Your task to perform on an android device: turn on translation in the chrome app Image 0: 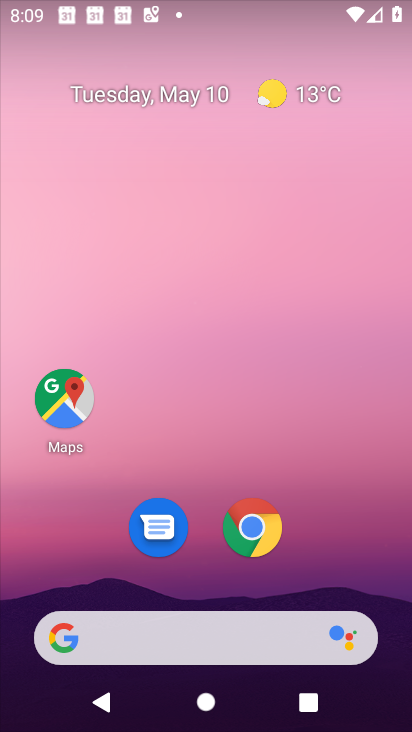
Step 0: click (260, 519)
Your task to perform on an android device: turn on translation in the chrome app Image 1: 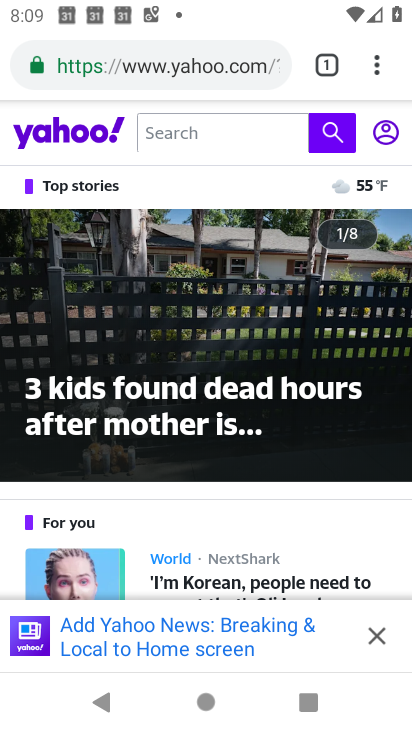
Step 1: click (379, 63)
Your task to perform on an android device: turn on translation in the chrome app Image 2: 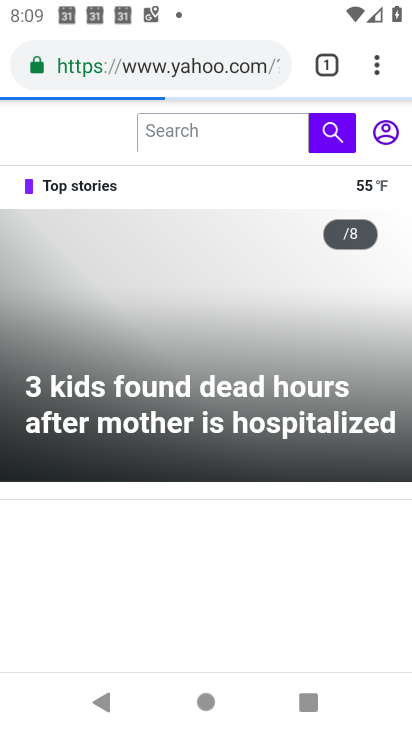
Step 2: click (372, 76)
Your task to perform on an android device: turn on translation in the chrome app Image 3: 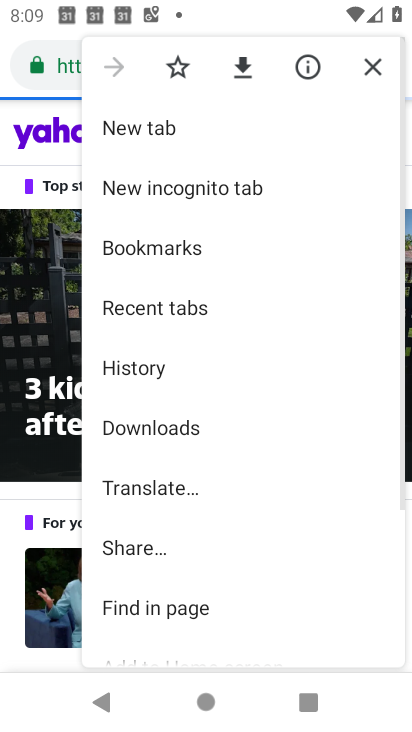
Step 3: drag from (181, 600) to (267, 194)
Your task to perform on an android device: turn on translation in the chrome app Image 4: 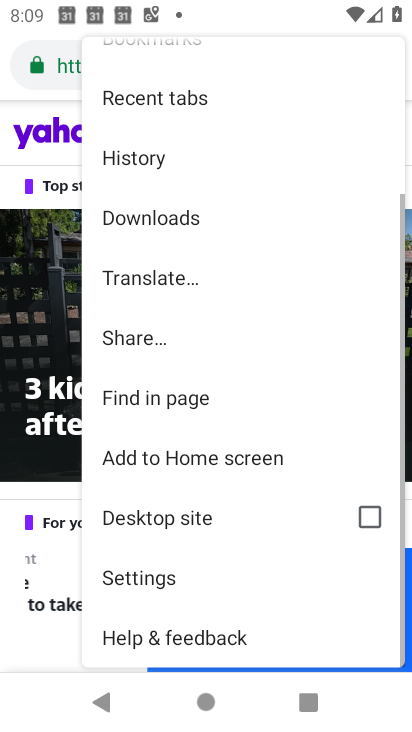
Step 4: click (163, 573)
Your task to perform on an android device: turn on translation in the chrome app Image 5: 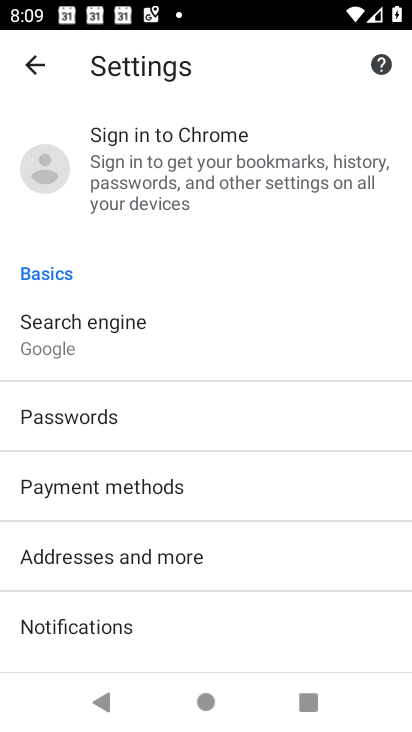
Step 5: drag from (40, 638) to (241, 168)
Your task to perform on an android device: turn on translation in the chrome app Image 6: 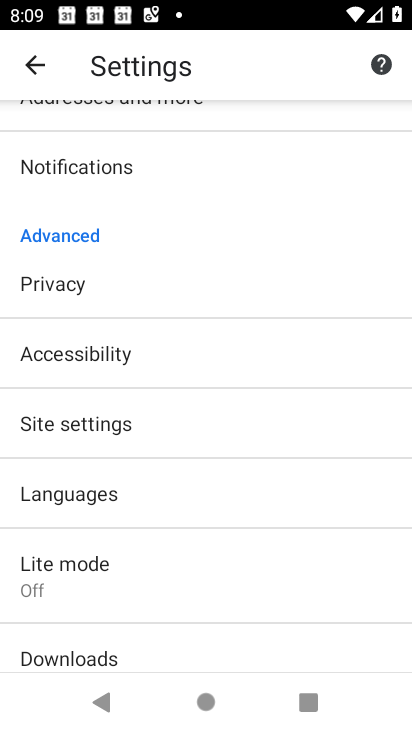
Step 6: click (85, 487)
Your task to perform on an android device: turn on translation in the chrome app Image 7: 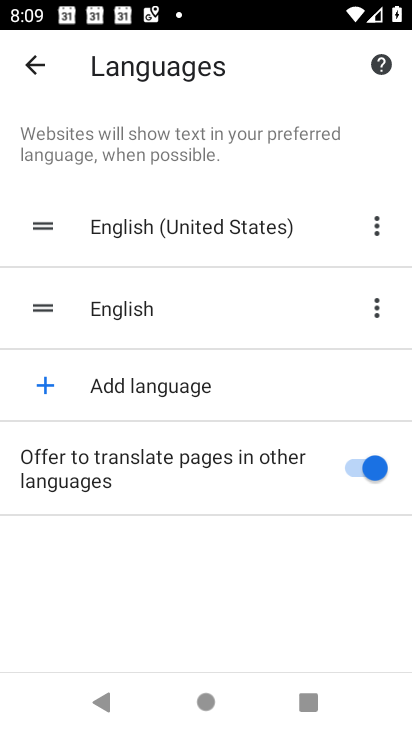
Step 7: task complete